Your task to perform on an android device: see tabs open on other devices in the chrome app Image 0: 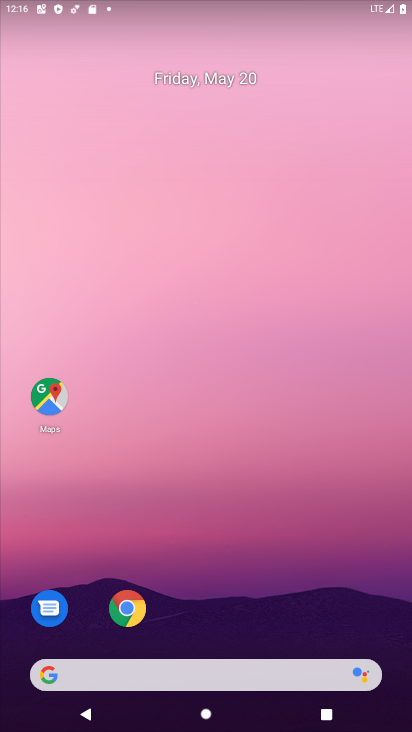
Step 0: drag from (355, 592) to (305, 141)
Your task to perform on an android device: see tabs open on other devices in the chrome app Image 1: 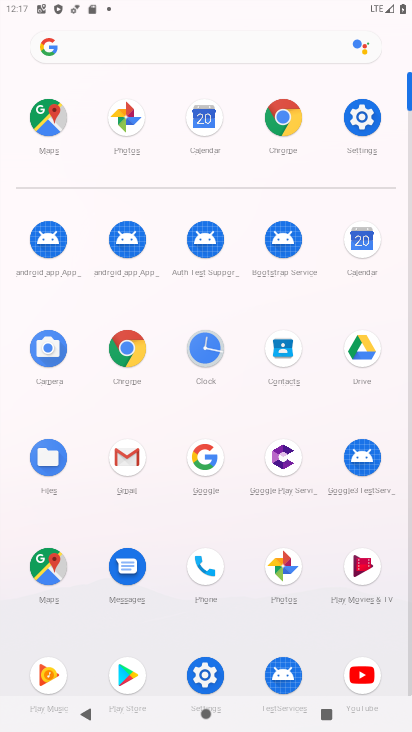
Step 1: click (122, 338)
Your task to perform on an android device: see tabs open on other devices in the chrome app Image 2: 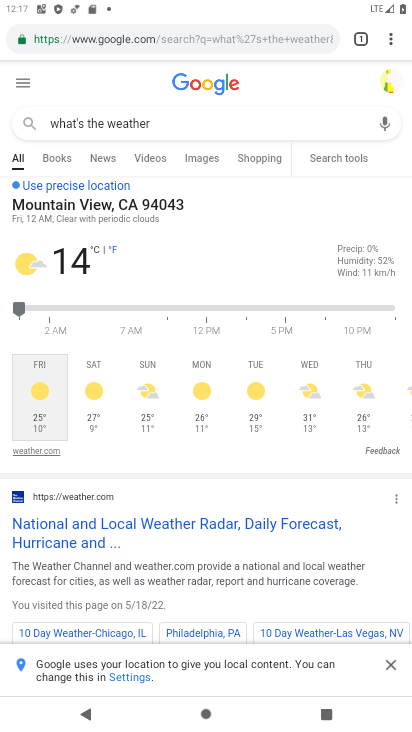
Step 2: task complete